Your task to perform on an android device: What's the weather going to be tomorrow? Image 0: 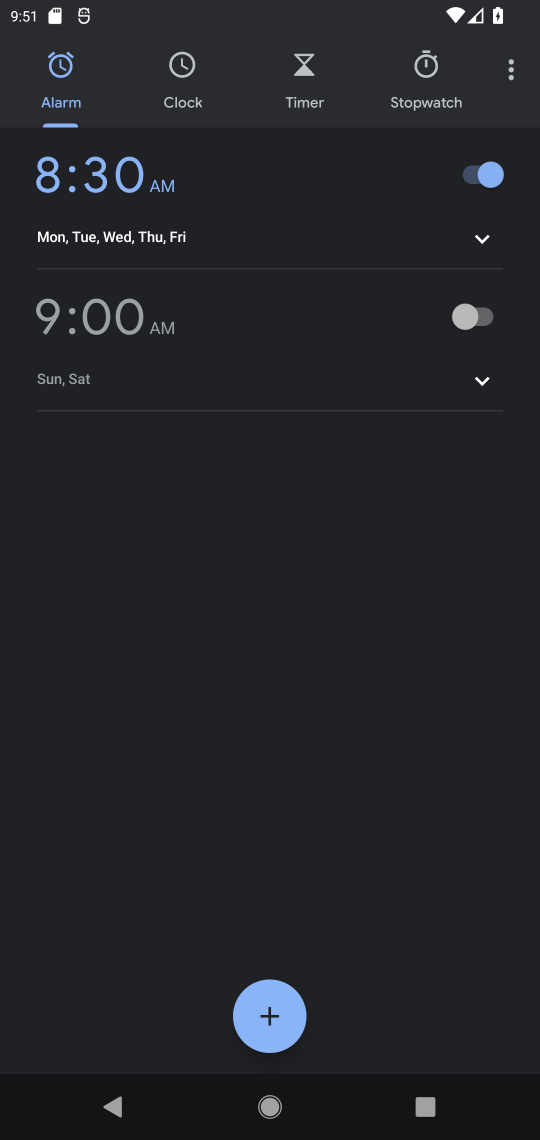
Step 0: press home button
Your task to perform on an android device: What's the weather going to be tomorrow? Image 1: 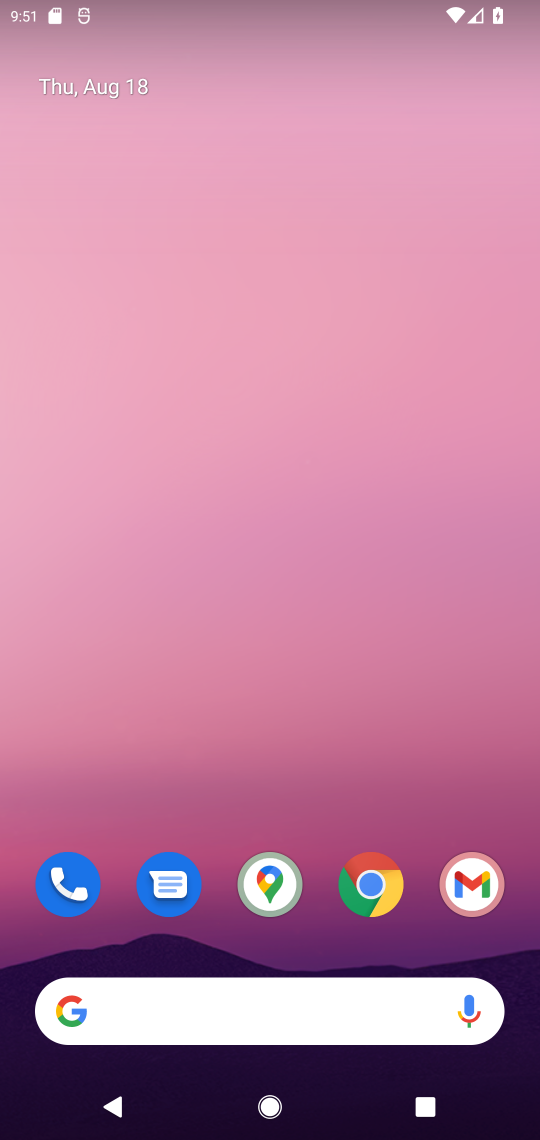
Step 1: click (70, 990)
Your task to perform on an android device: What's the weather going to be tomorrow? Image 2: 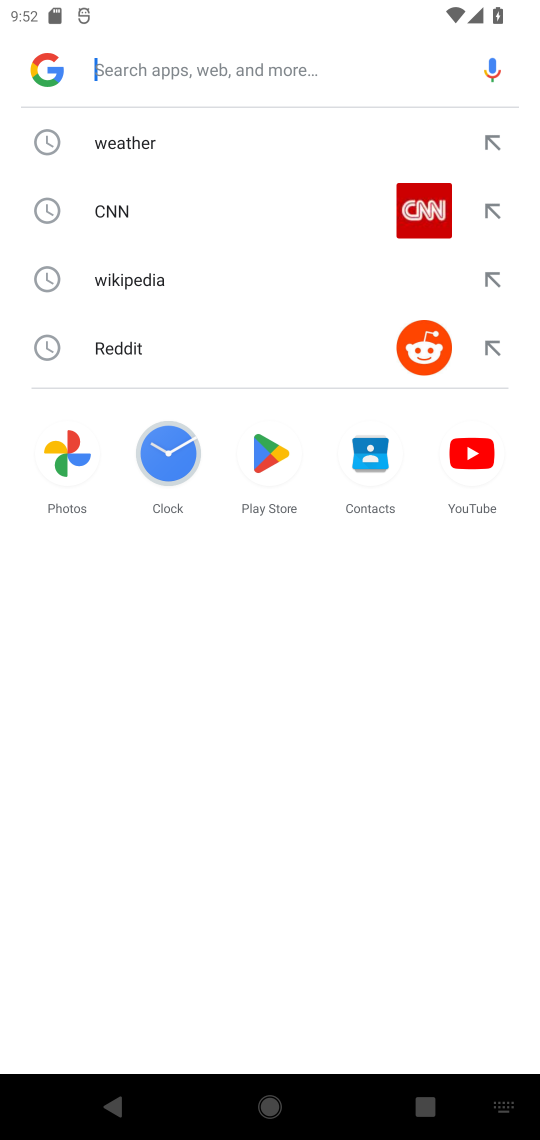
Step 2: click (126, 128)
Your task to perform on an android device: What's the weather going to be tomorrow? Image 3: 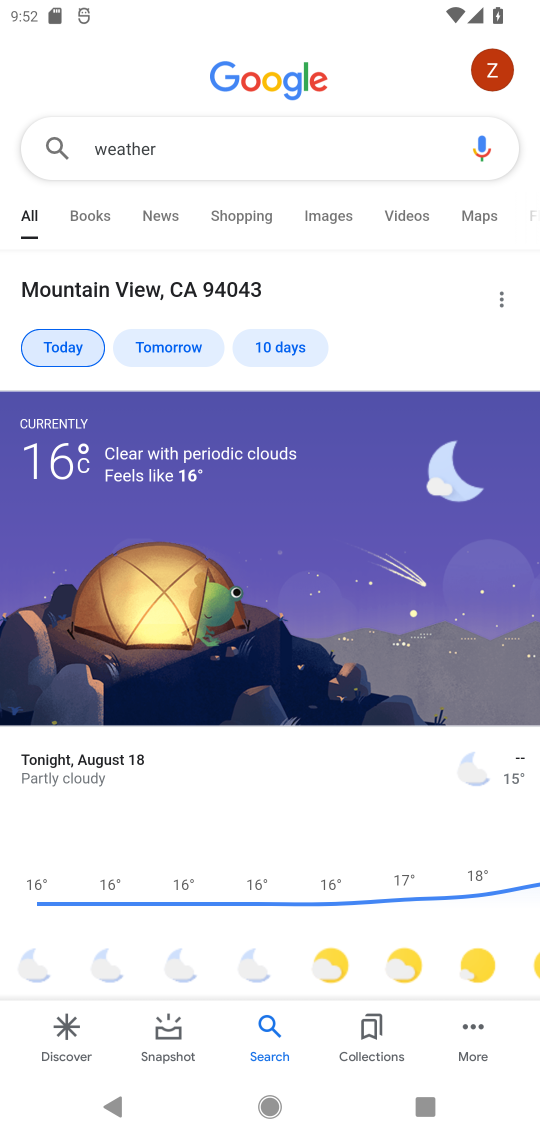
Step 3: click (171, 348)
Your task to perform on an android device: What's the weather going to be tomorrow? Image 4: 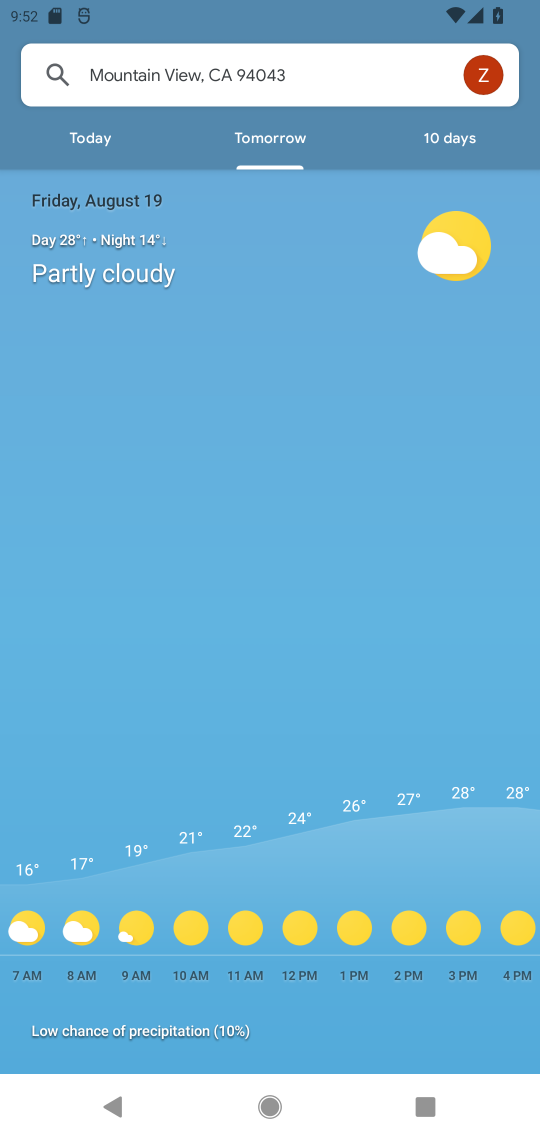
Step 4: task complete